Your task to perform on an android device: Open settings Image 0: 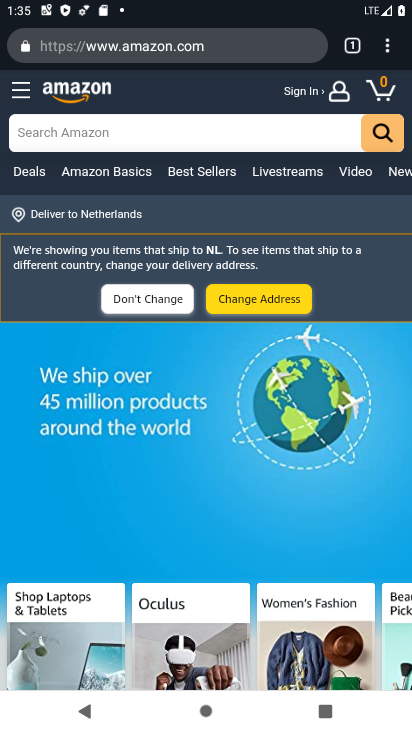
Step 0: press home button
Your task to perform on an android device: Open settings Image 1: 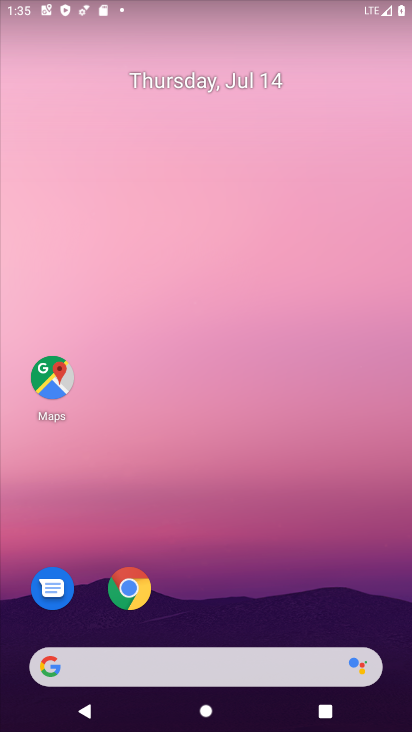
Step 1: drag from (253, 600) to (334, 158)
Your task to perform on an android device: Open settings Image 2: 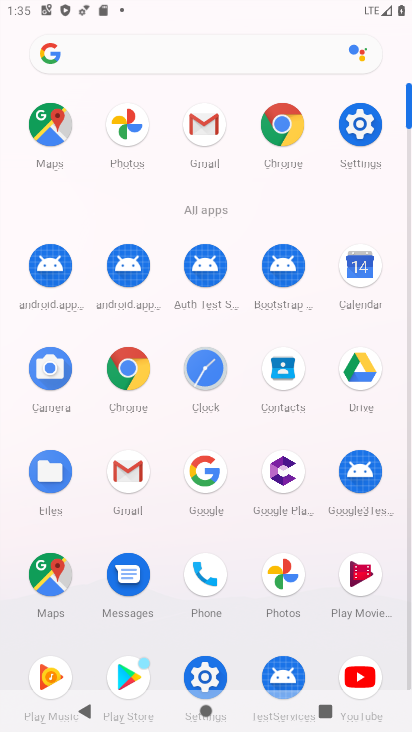
Step 2: click (355, 124)
Your task to perform on an android device: Open settings Image 3: 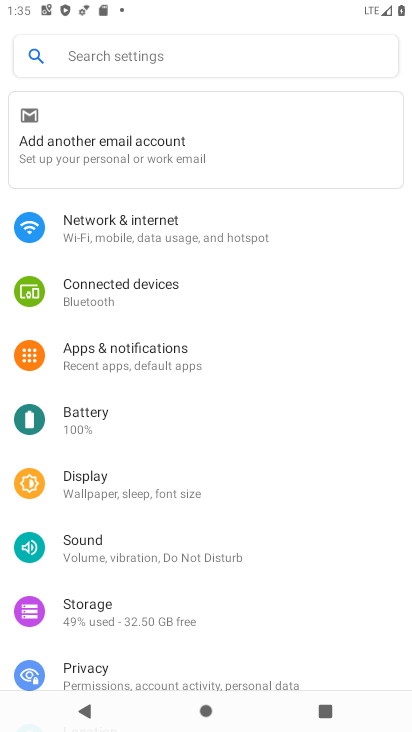
Step 3: task complete